Your task to perform on an android device: check data usage Image 0: 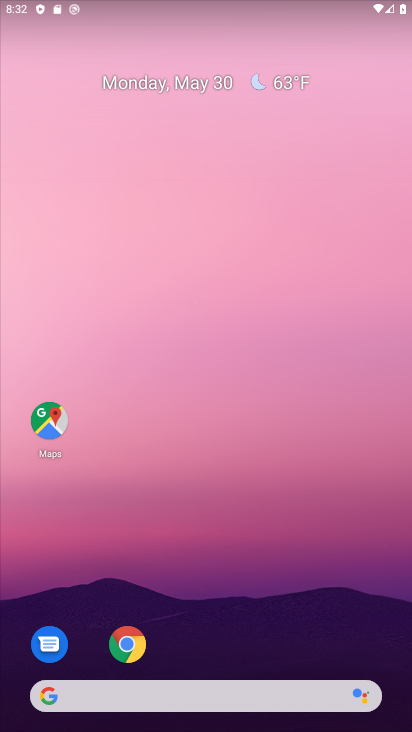
Step 0: drag from (168, 633) to (193, 82)
Your task to perform on an android device: check data usage Image 1: 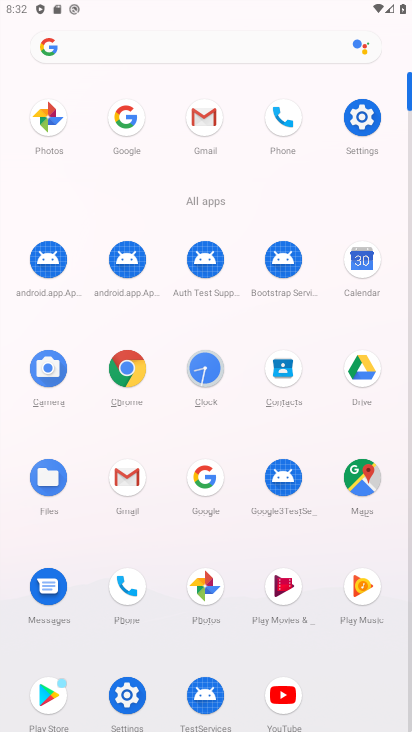
Step 1: click (360, 107)
Your task to perform on an android device: check data usage Image 2: 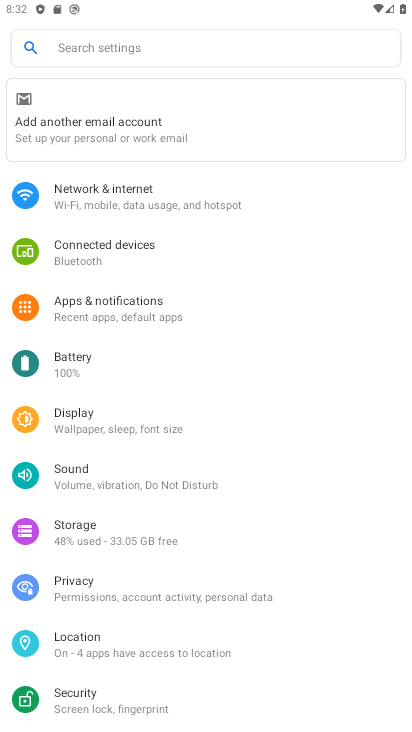
Step 2: click (96, 182)
Your task to perform on an android device: check data usage Image 3: 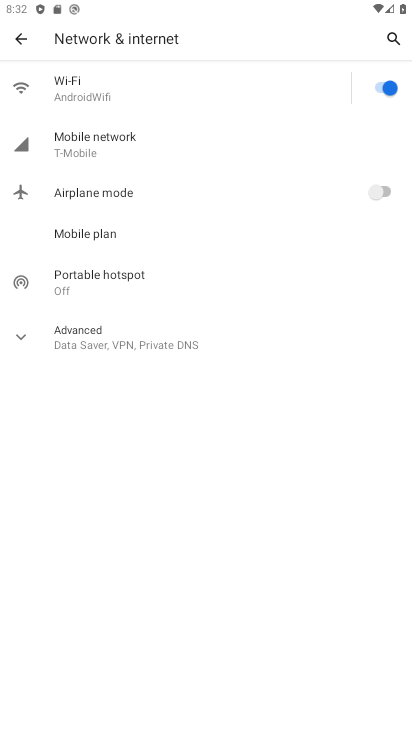
Step 3: drag from (126, 188) to (64, 414)
Your task to perform on an android device: check data usage Image 4: 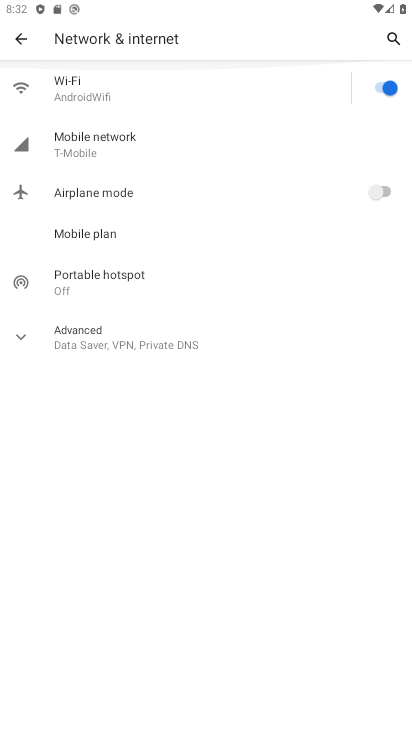
Step 4: click (75, 147)
Your task to perform on an android device: check data usage Image 5: 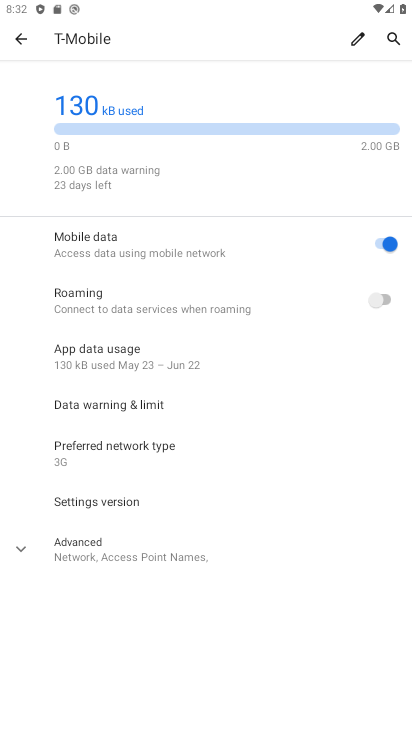
Step 5: task complete